Your task to perform on an android device: Go to battery settings Image 0: 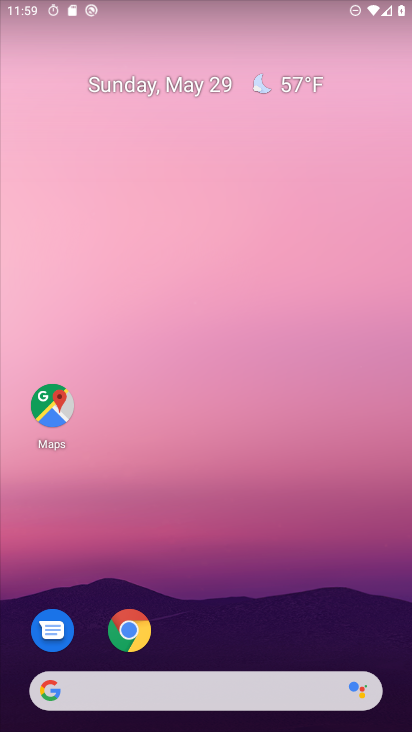
Step 0: drag from (283, 711) to (241, 271)
Your task to perform on an android device: Go to battery settings Image 1: 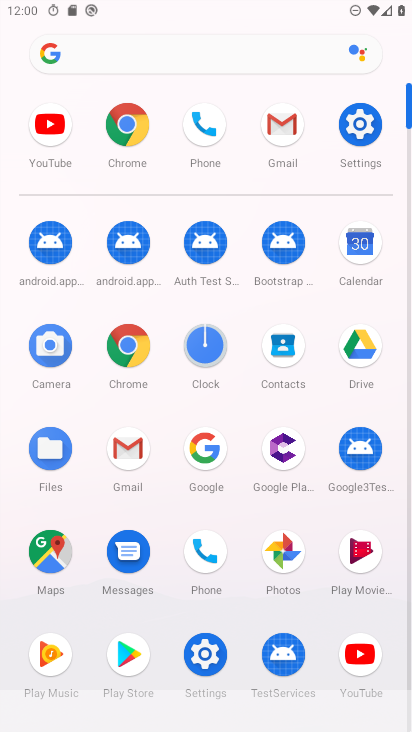
Step 1: click (365, 135)
Your task to perform on an android device: Go to battery settings Image 2: 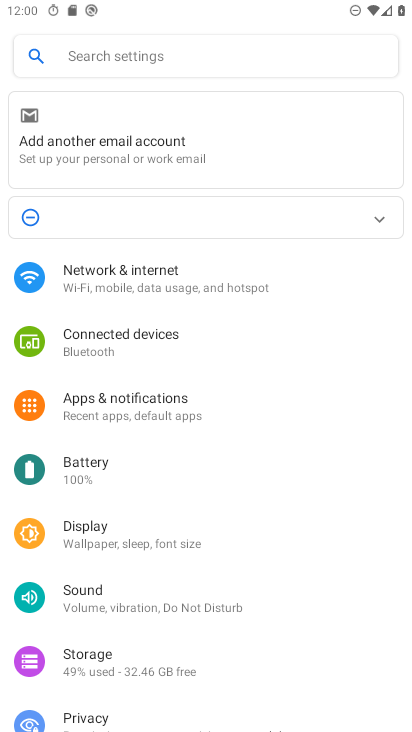
Step 2: click (145, 477)
Your task to perform on an android device: Go to battery settings Image 3: 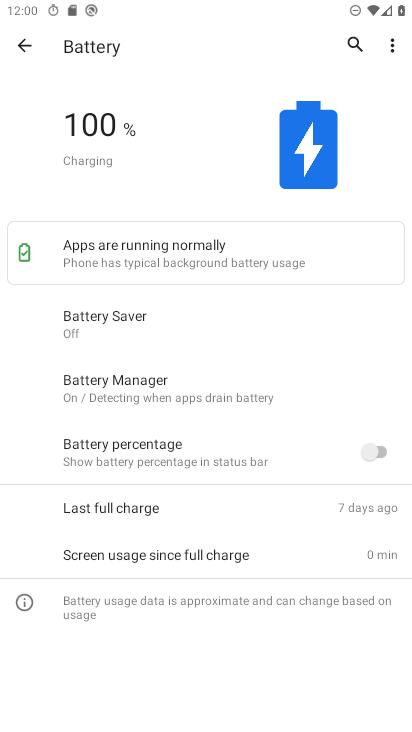
Step 3: task complete